Your task to perform on an android device: clear history in the chrome app Image 0: 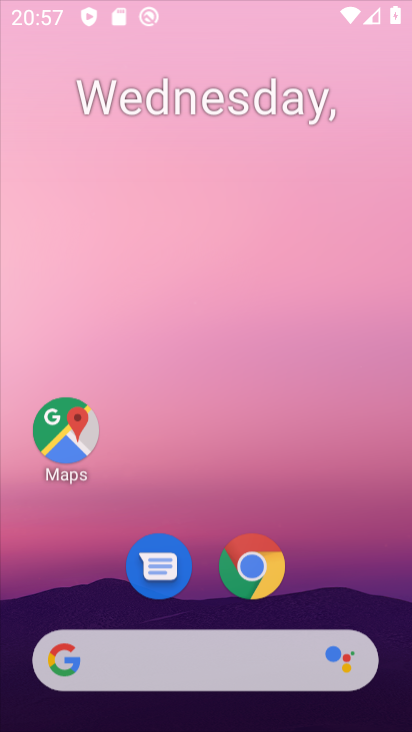
Step 0: click (370, 209)
Your task to perform on an android device: clear history in the chrome app Image 1: 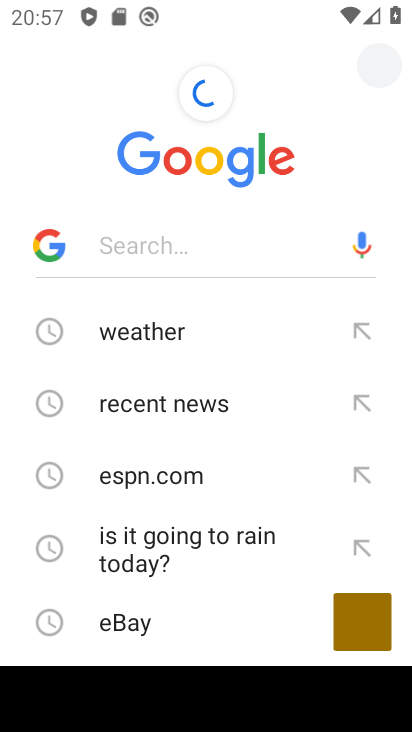
Step 1: press home button
Your task to perform on an android device: clear history in the chrome app Image 2: 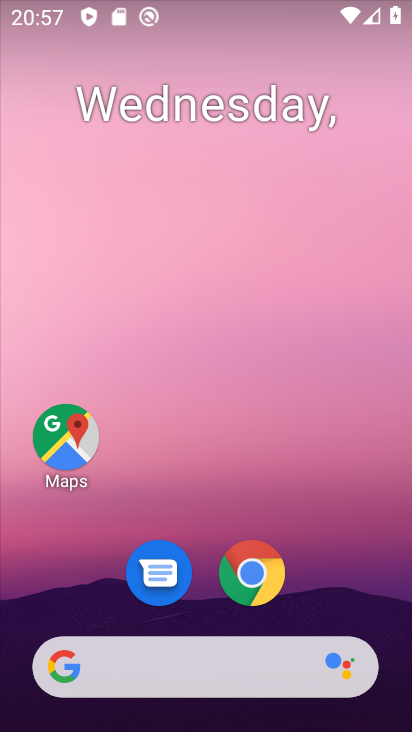
Step 2: drag from (347, 187) to (332, 124)
Your task to perform on an android device: clear history in the chrome app Image 3: 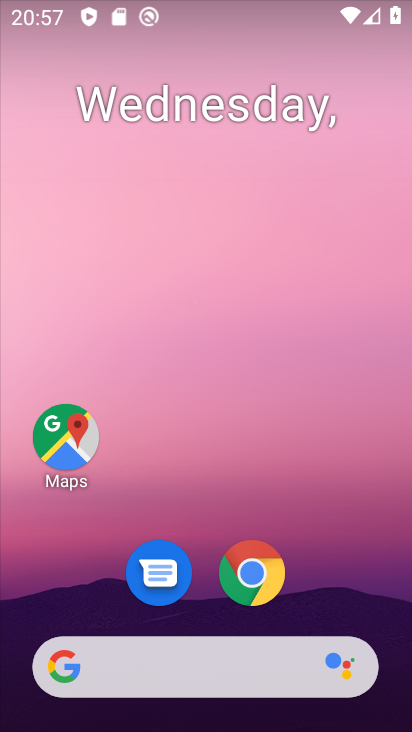
Step 3: click (375, 92)
Your task to perform on an android device: clear history in the chrome app Image 4: 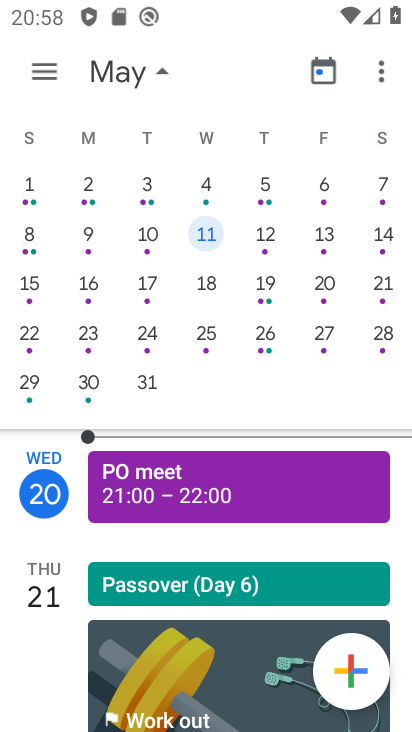
Step 4: press home button
Your task to perform on an android device: clear history in the chrome app Image 5: 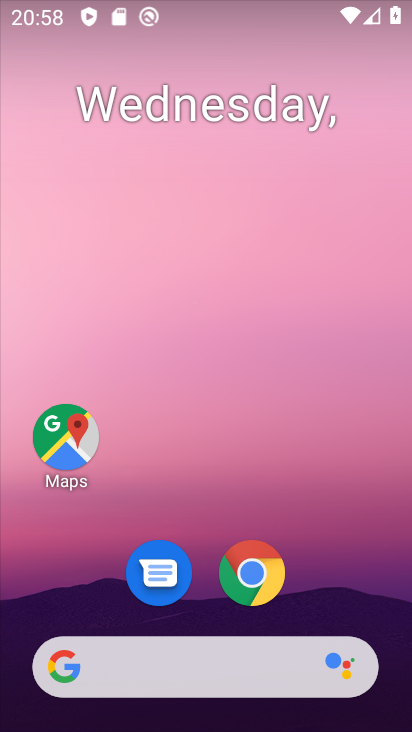
Step 5: click (251, 571)
Your task to perform on an android device: clear history in the chrome app Image 6: 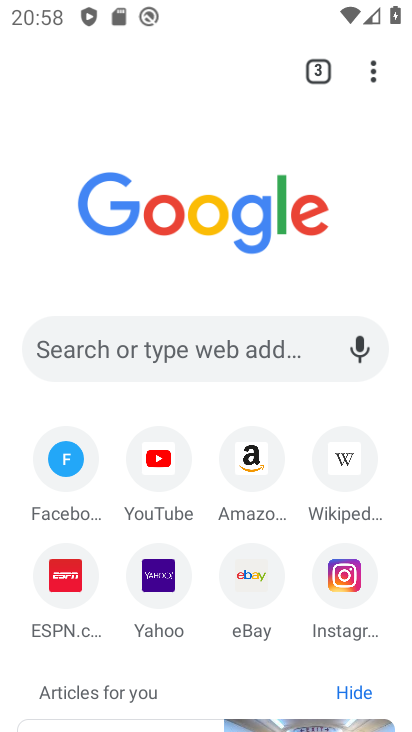
Step 6: click (251, 571)
Your task to perform on an android device: clear history in the chrome app Image 7: 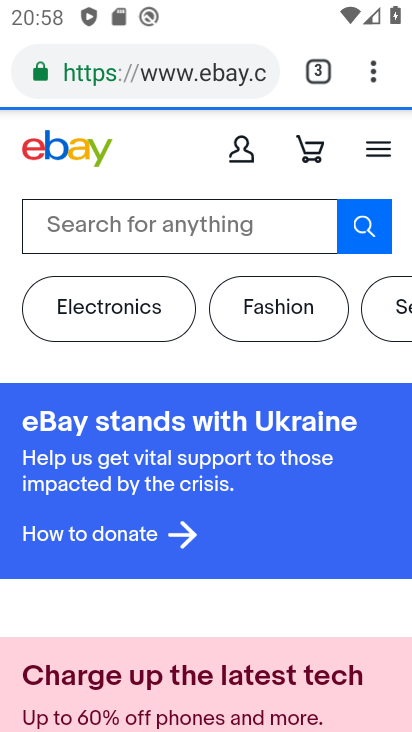
Step 7: click (372, 68)
Your task to perform on an android device: clear history in the chrome app Image 8: 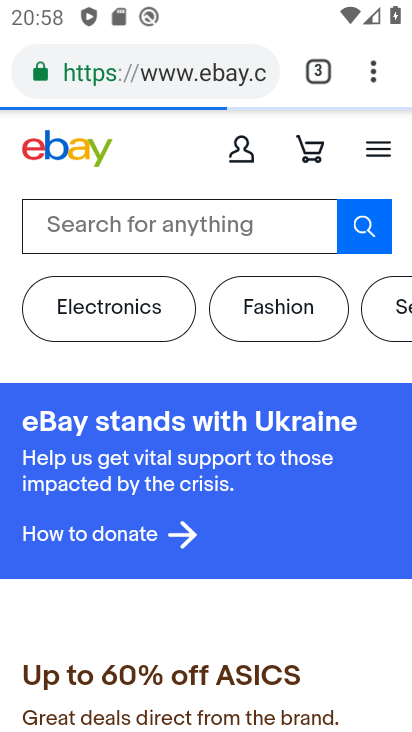
Step 8: click (372, 68)
Your task to perform on an android device: clear history in the chrome app Image 9: 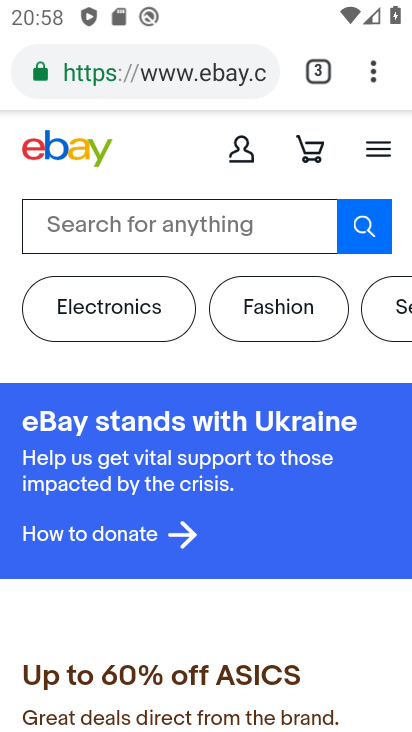
Step 9: click (372, 68)
Your task to perform on an android device: clear history in the chrome app Image 10: 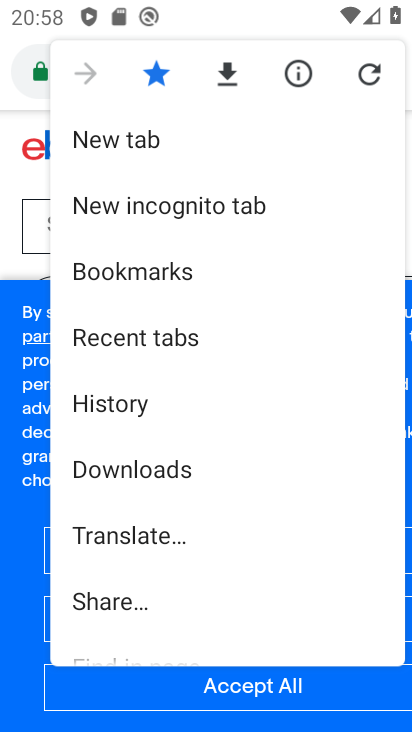
Step 10: drag from (278, 230) to (279, 194)
Your task to perform on an android device: clear history in the chrome app Image 11: 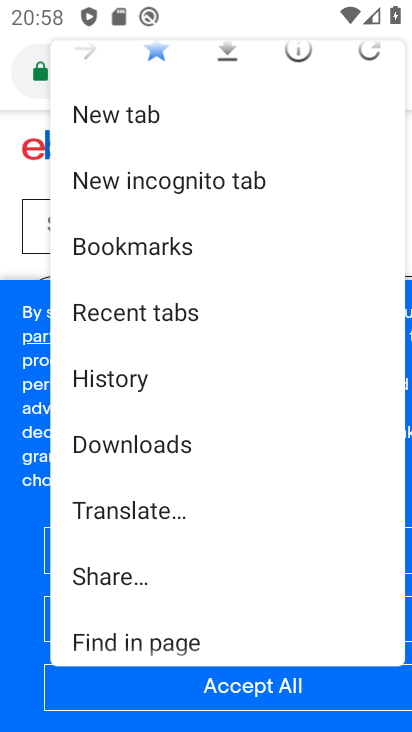
Step 11: drag from (251, 609) to (281, 246)
Your task to perform on an android device: clear history in the chrome app Image 12: 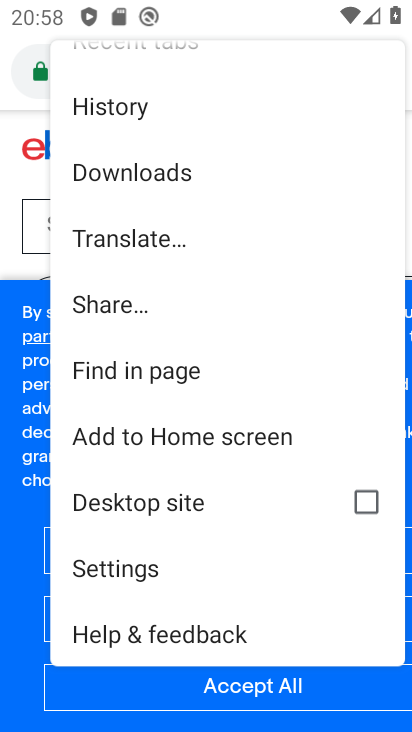
Step 12: click (119, 107)
Your task to perform on an android device: clear history in the chrome app Image 13: 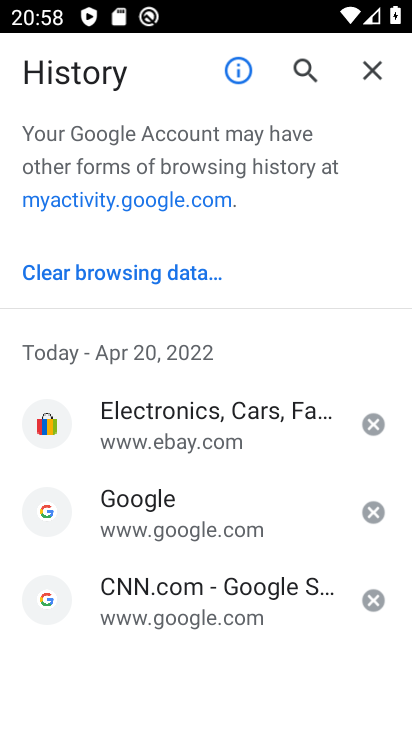
Step 13: click (149, 272)
Your task to perform on an android device: clear history in the chrome app Image 14: 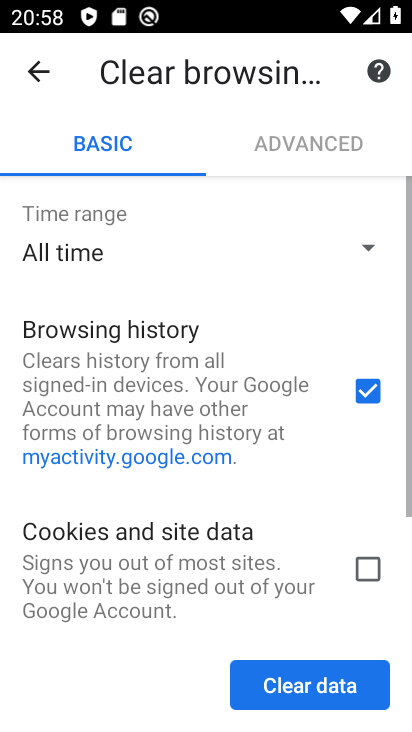
Step 14: click (302, 679)
Your task to perform on an android device: clear history in the chrome app Image 15: 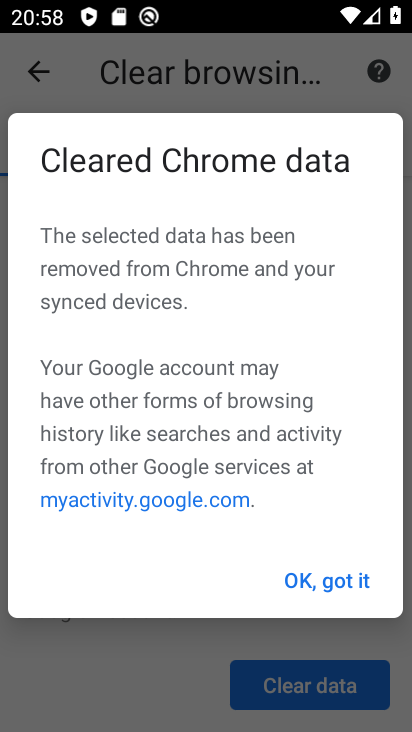
Step 15: click (344, 574)
Your task to perform on an android device: clear history in the chrome app Image 16: 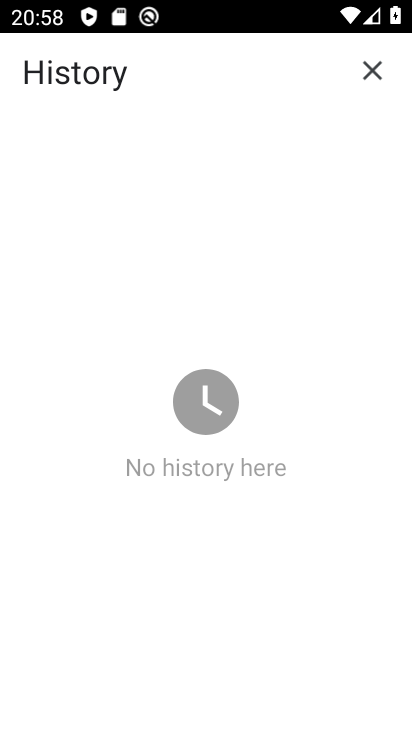
Step 16: task complete